Your task to perform on an android device: Add energizer triple a to the cart on bestbuy.com, then select checkout. Image 0: 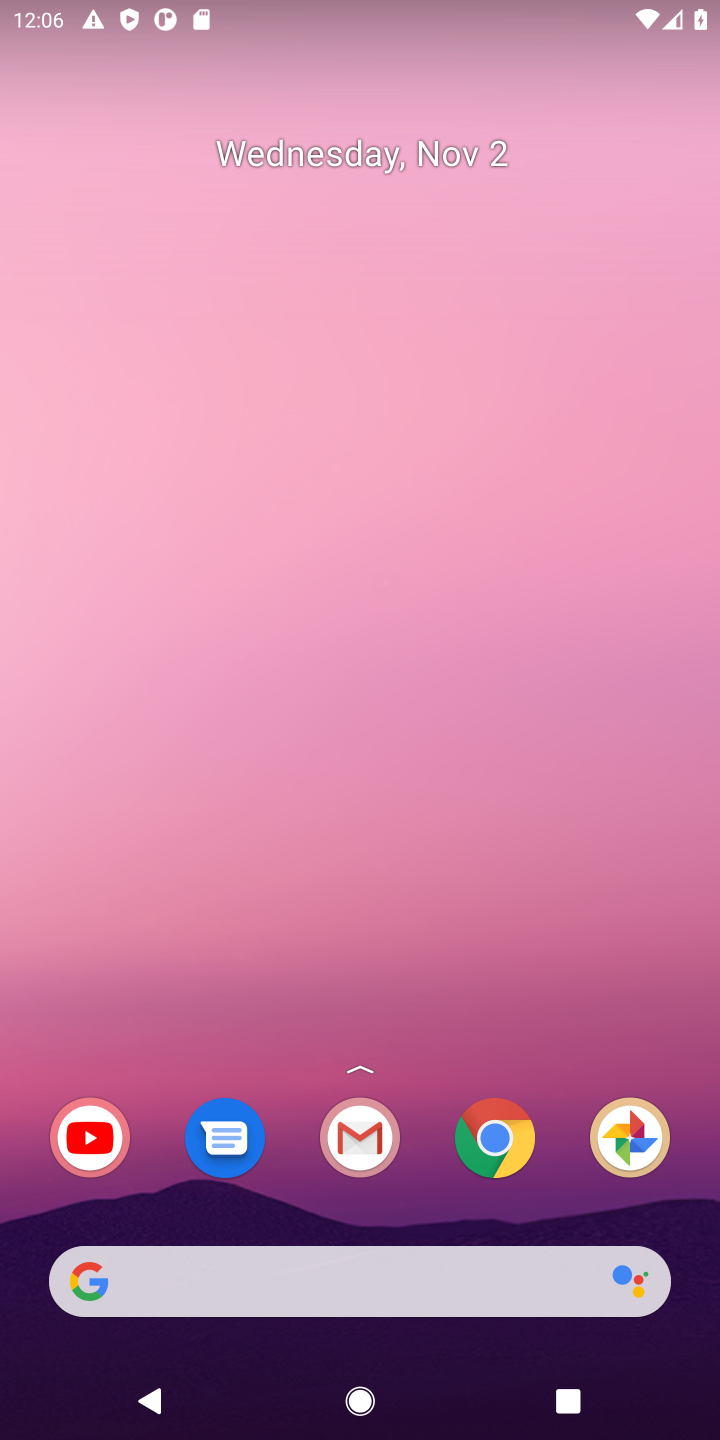
Step 0: click (141, 1281)
Your task to perform on an android device: Add energizer triple a to the cart on bestbuy.com, then select checkout. Image 1: 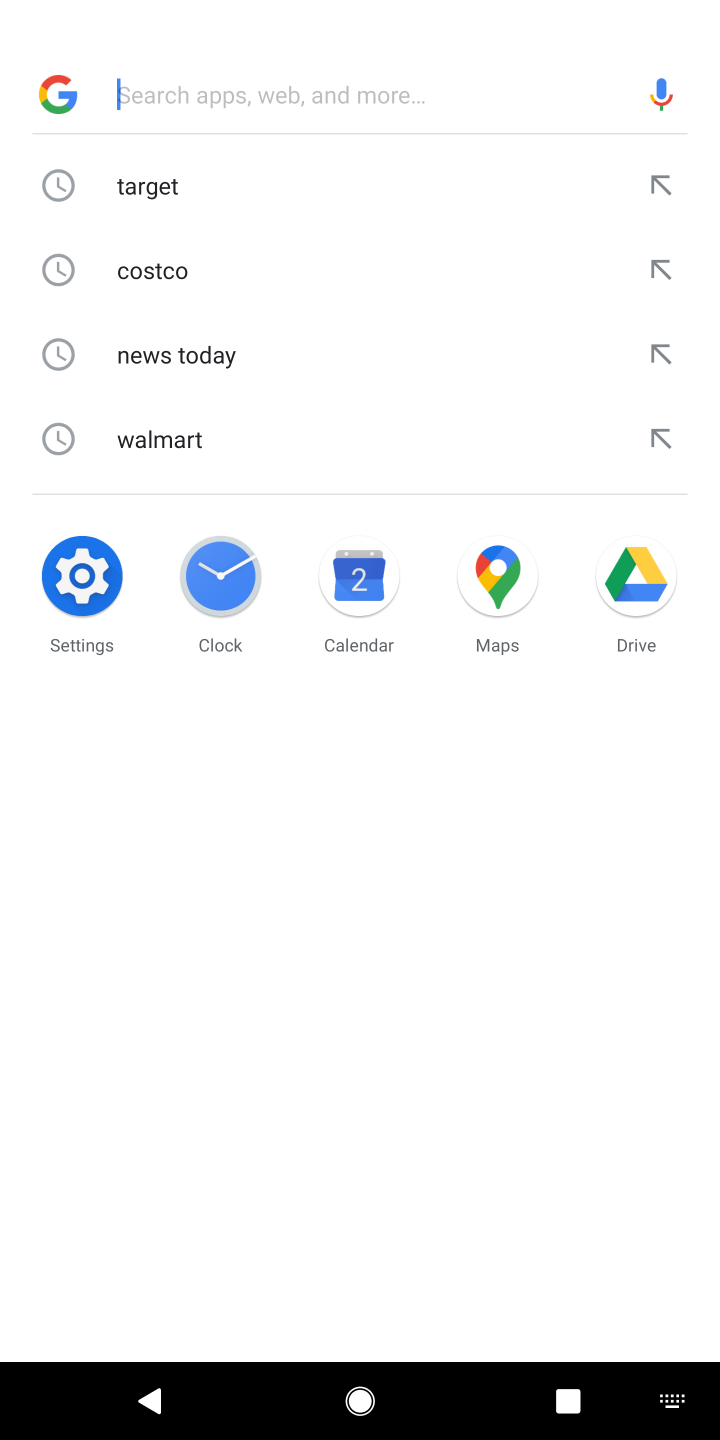
Step 1: type "bestbuy.com"
Your task to perform on an android device: Add energizer triple a to the cart on bestbuy.com, then select checkout. Image 2: 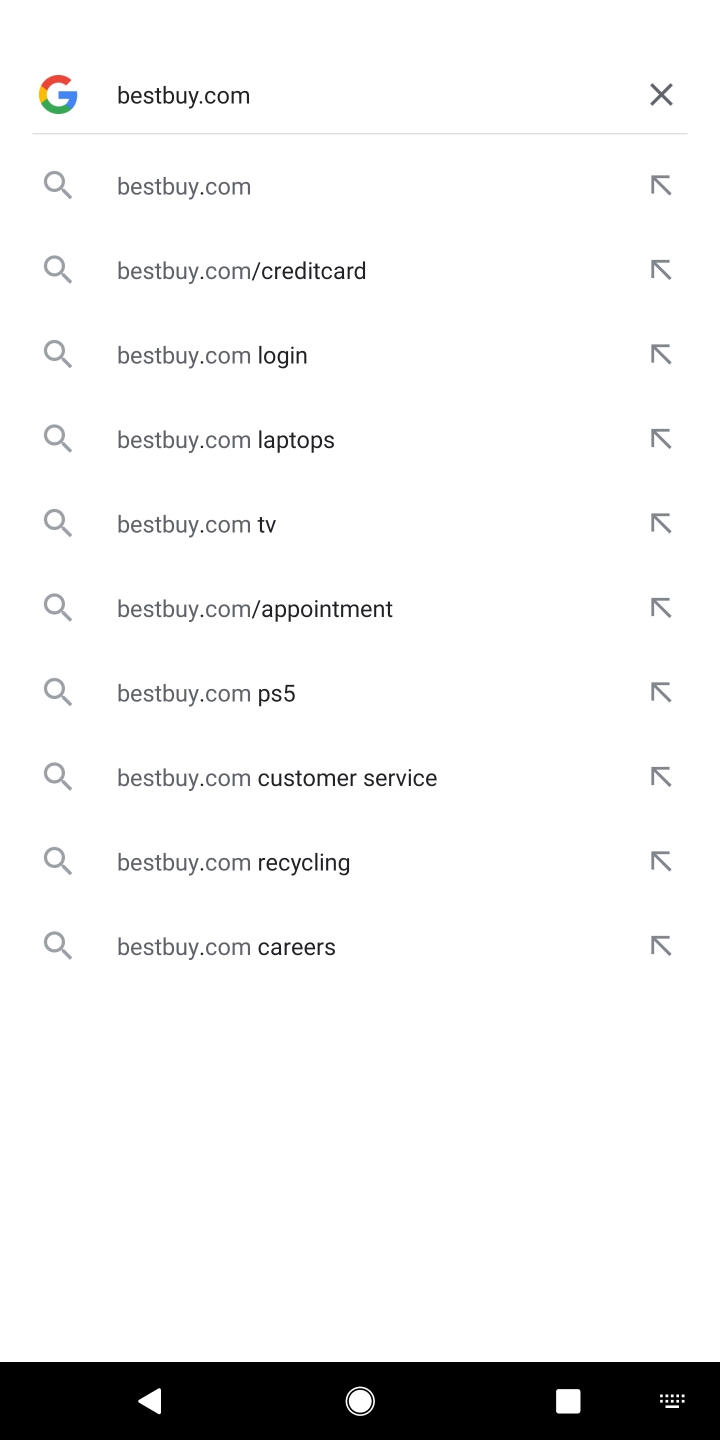
Step 2: press enter
Your task to perform on an android device: Add energizer triple a to the cart on bestbuy.com, then select checkout. Image 3: 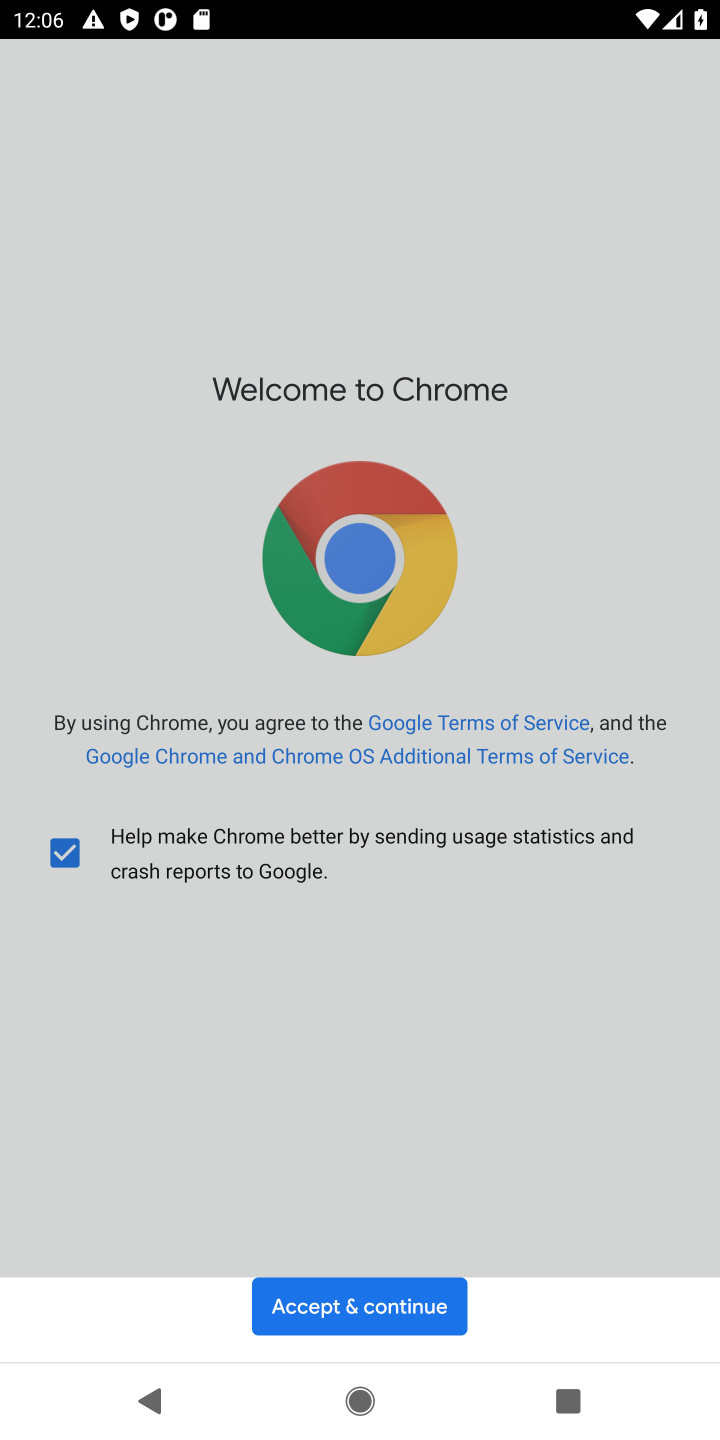
Step 3: click (336, 1314)
Your task to perform on an android device: Add energizer triple a to the cart on bestbuy.com, then select checkout. Image 4: 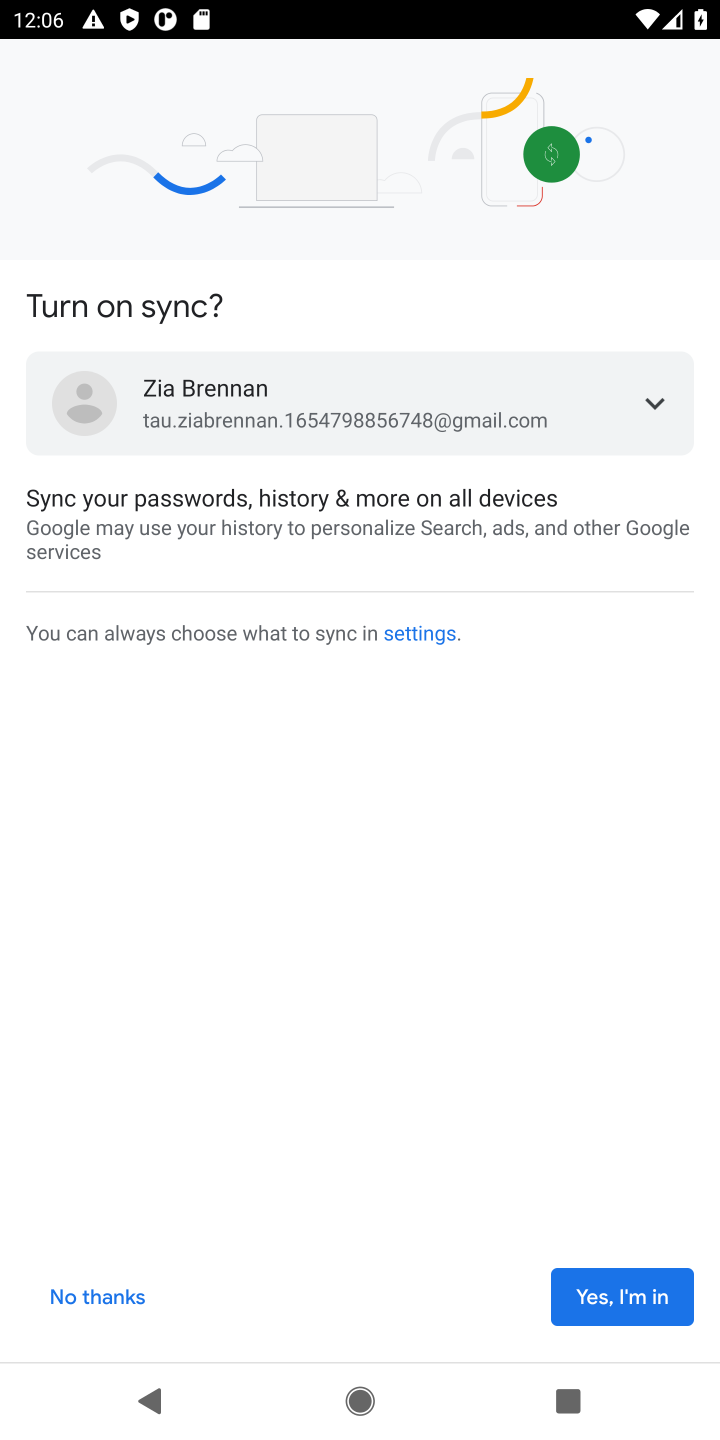
Step 4: click (617, 1309)
Your task to perform on an android device: Add energizer triple a to the cart on bestbuy.com, then select checkout. Image 5: 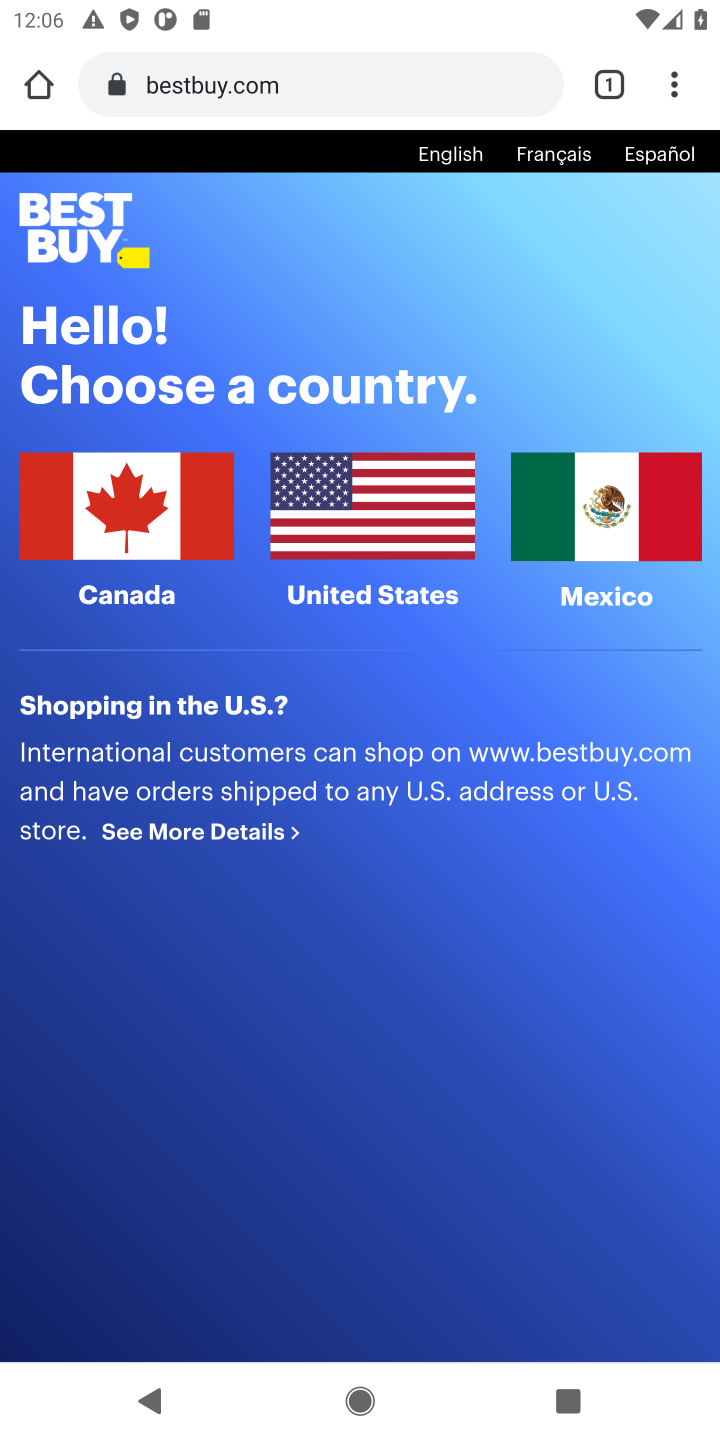
Step 5: click (97, 506)
Your task to perform on an android device: Add energizer triple a to the cart on bestbuy.com, then select checkout. Image 6: 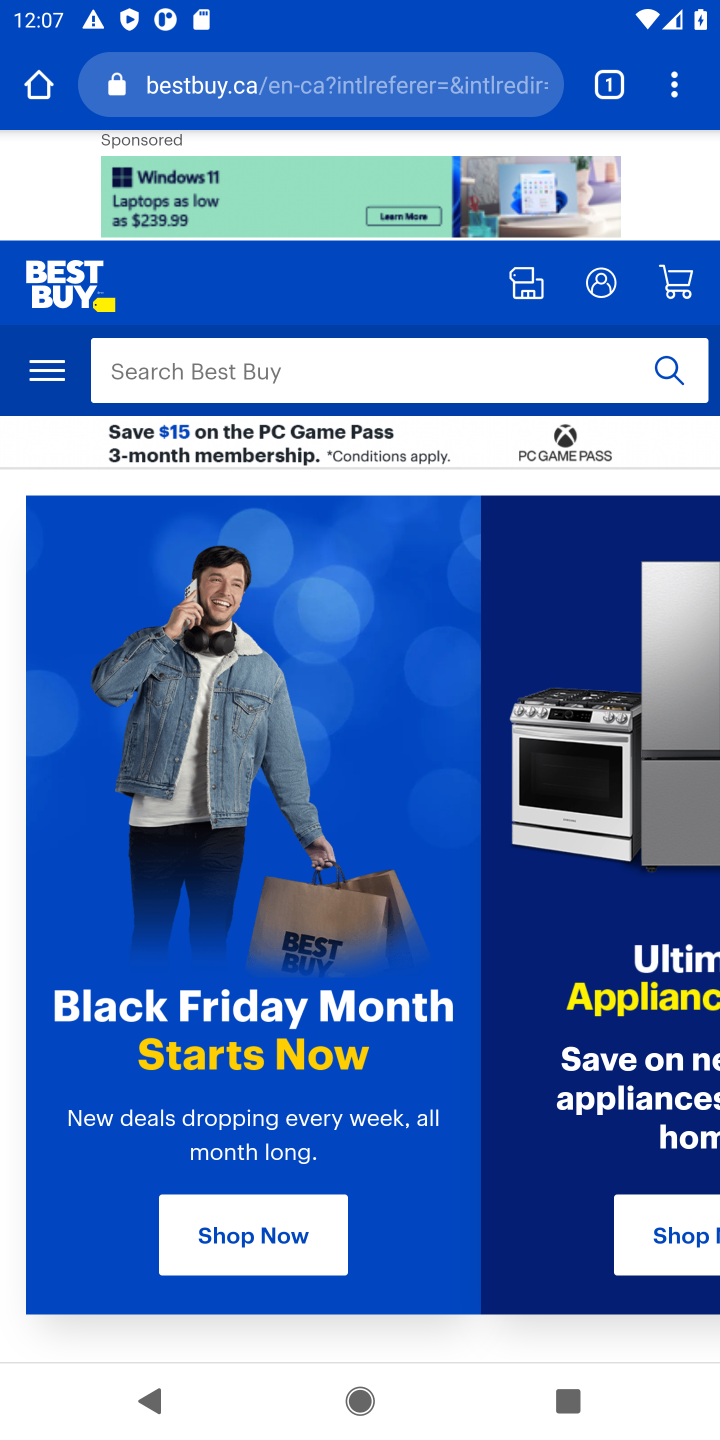
Step 6: click (380, 379)
Your task to perform on an android device: Add energizer triple a to the cart on bestbuy.com, then select checkout. Image 7: 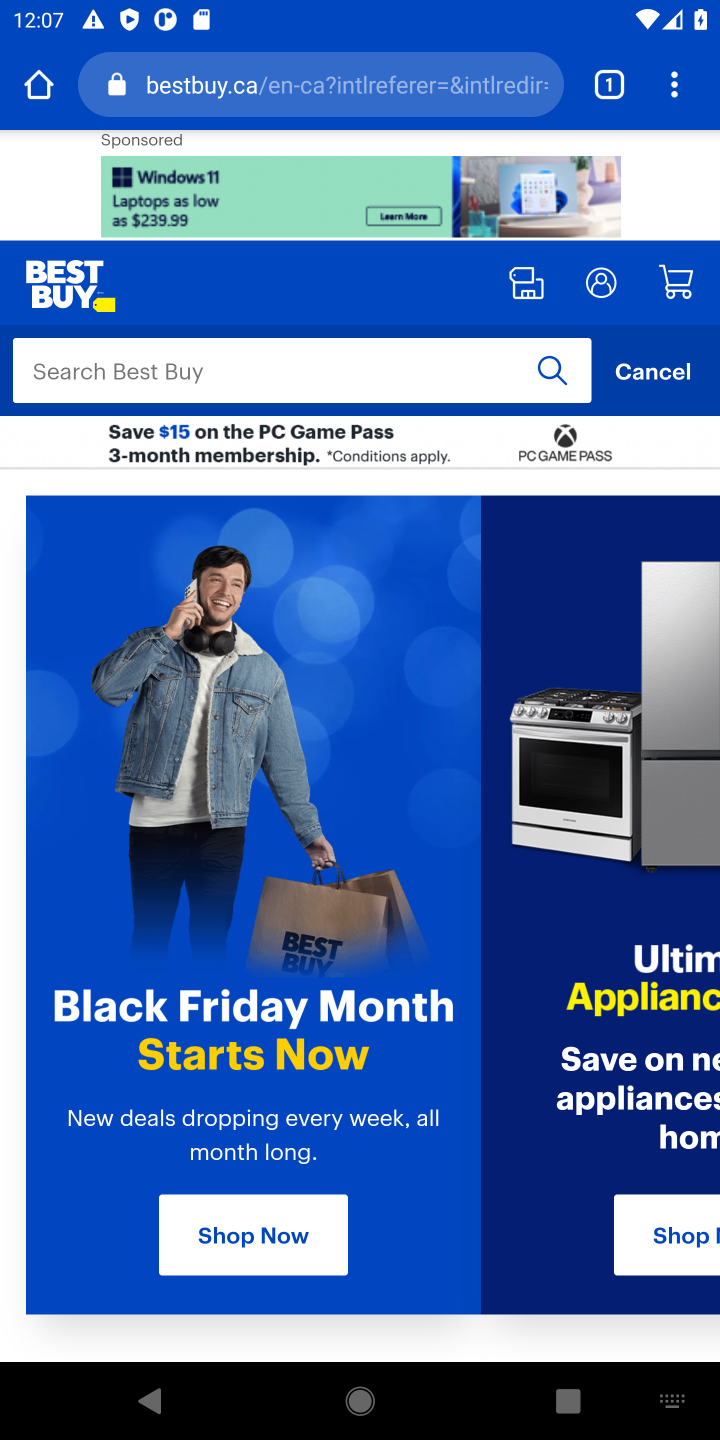
Step 7: press enter
Your task to perform on an android device: Add energizer triple a to the cart on bestbuy.com, then select checkout. Image 8: 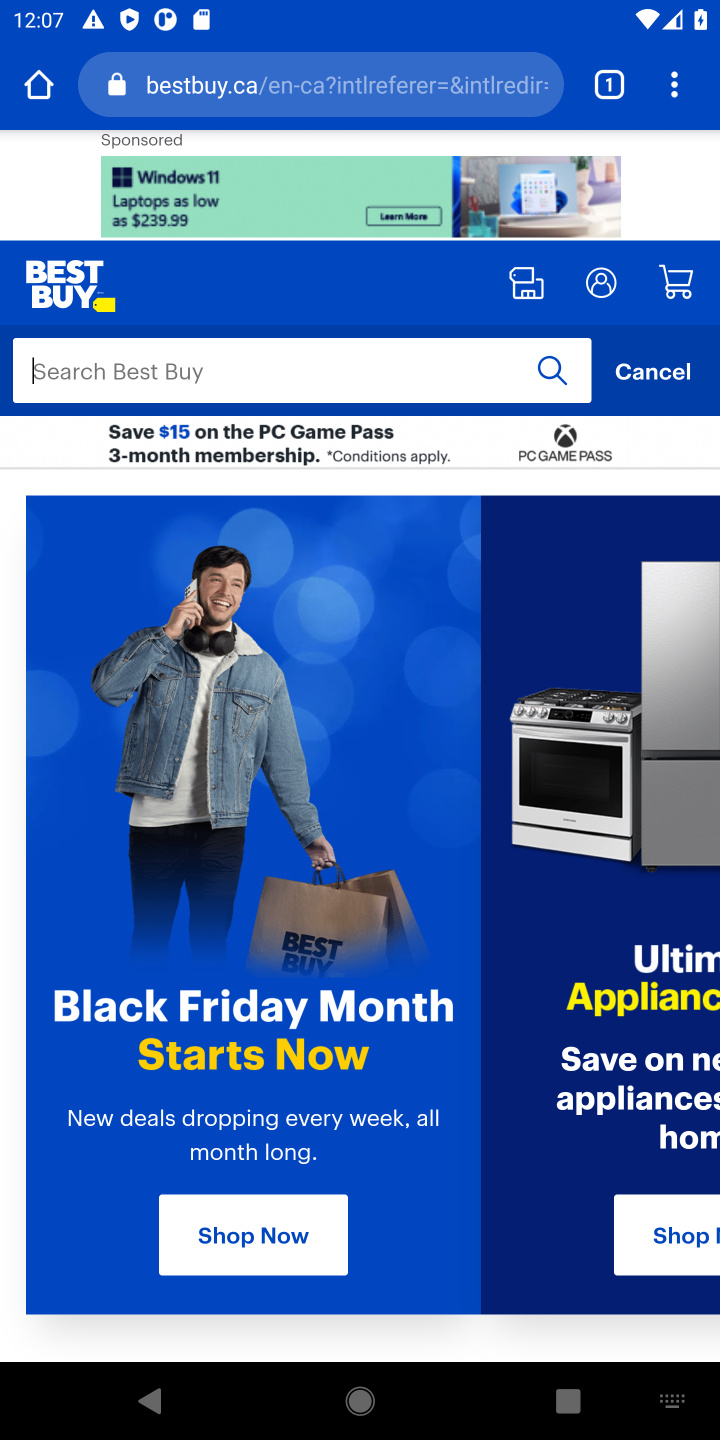
Step 8: type "energizer triple a"
Your task to perform on an android device: Add energizer triple a to the cart on bestbuy.com, then select checkout. Image 9: 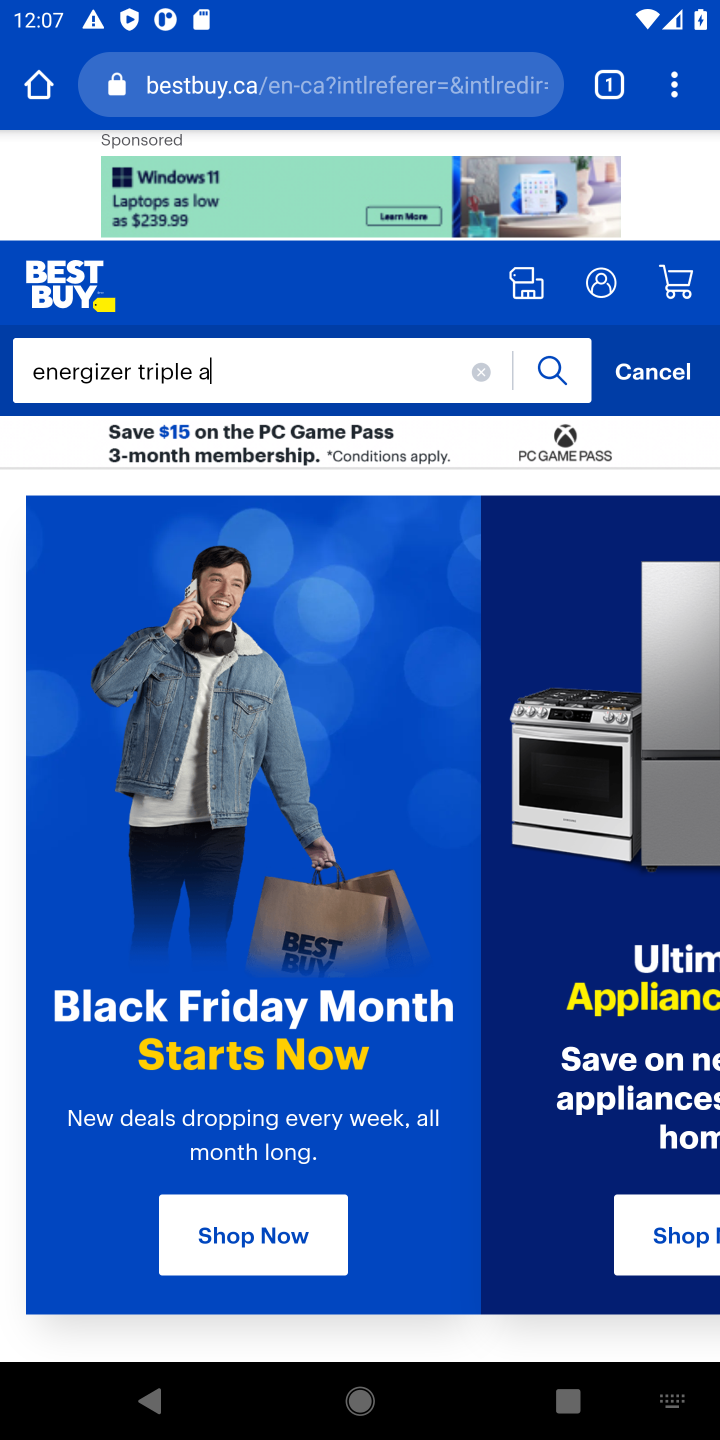
Step 9: press enter
Your task to perform on an android device: Add energizer triple a to the cart on bestbuy.com, then select checkout. Image 10: 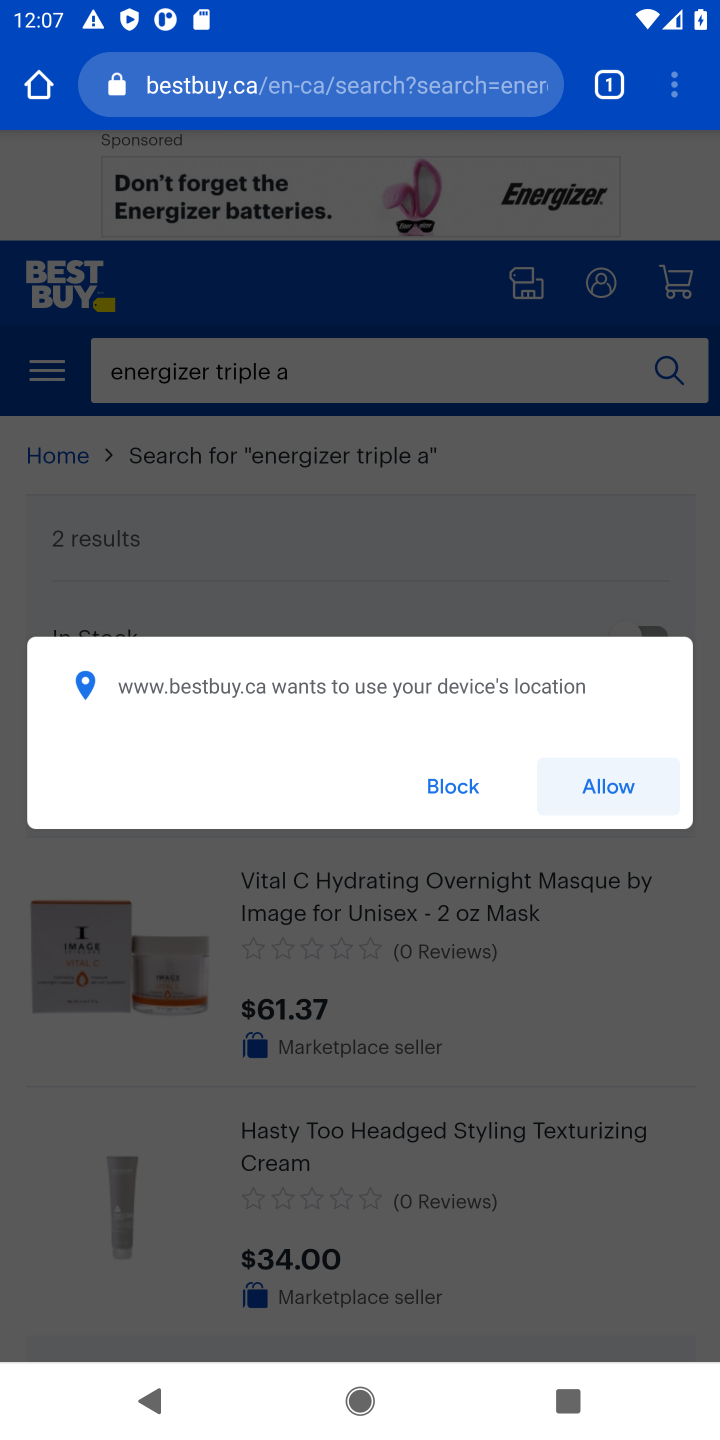
Step 10: click (453, 795)
Your task to perform on an android device: Add energizer triple a to the cart on bestbuy.com, then select checkout. Image 11: 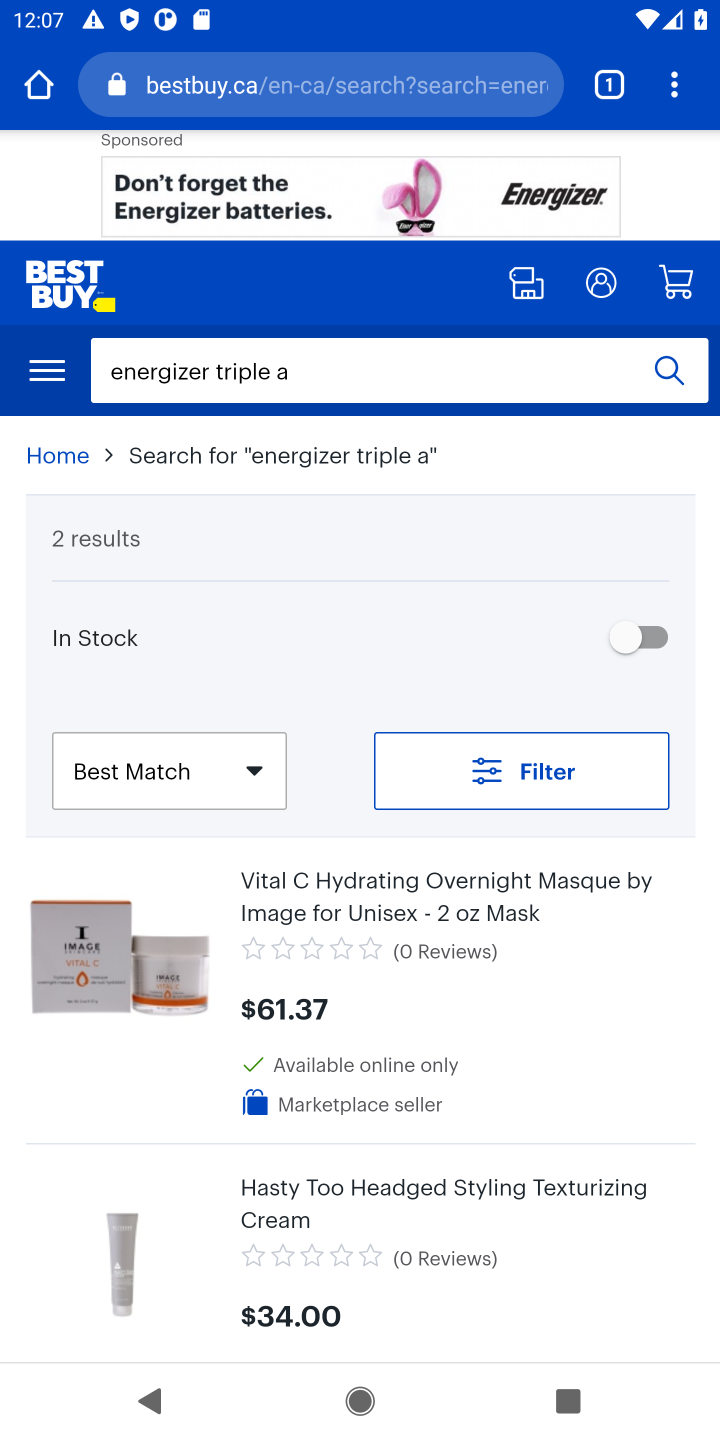
Step 11: task complete